Your task to perform on an android device: Toggle the flashlight Image 0: 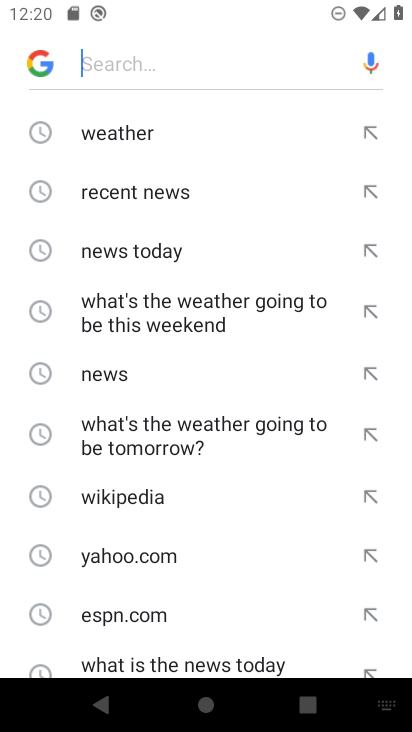
Step 0: press home button
Your task to perform on an android device: Toggle the flashlight Image 1: 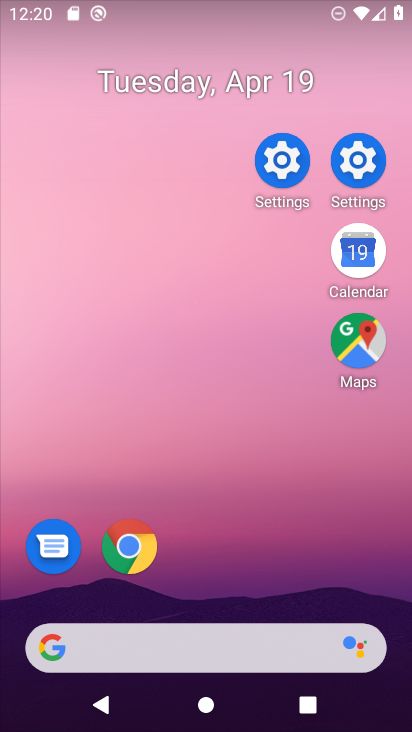
Step 1: drag from (268, 645) to (192, 69)
Your task to perform on an android device: Toggle the flashlight Image 2: 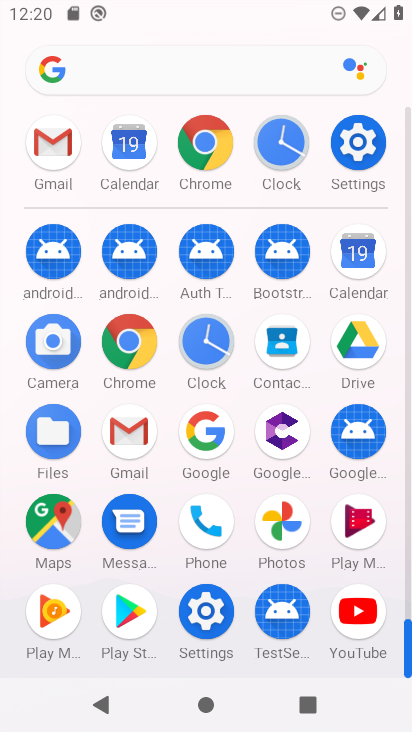
Step 2: click (347, 148)
Your task to perform on an android device: Toggle the flashlight Image 3: 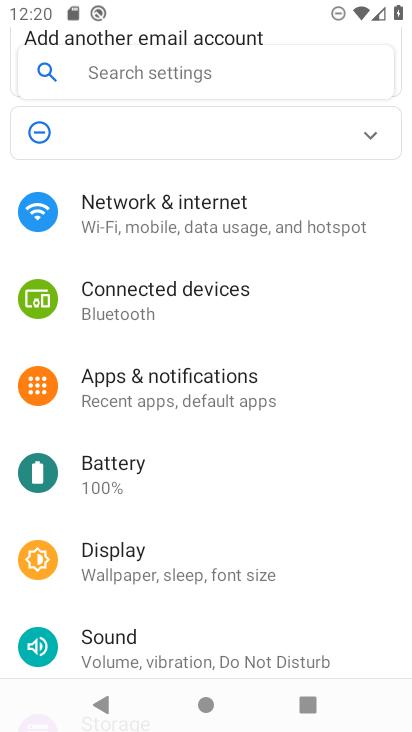
Step 3: task complete